Your task to perform on an android device: turn off priority inbox in the gmail app Image 0: 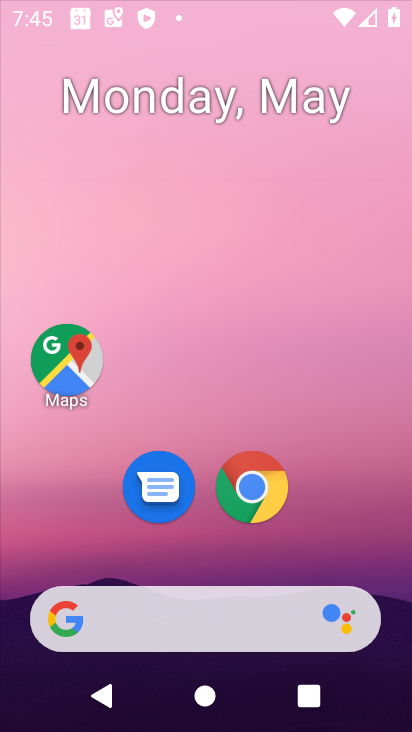
Step 0: click (341, 187)
Your task to perform on an android device: turn off priority inbox in the gmail app Image 1: 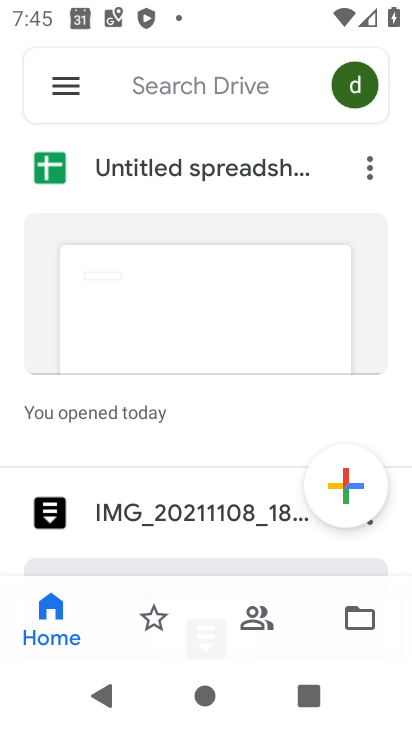
Step 1: press home button
Your task to perform on an android device: turn off priority inbox in the gmail app Image 2: 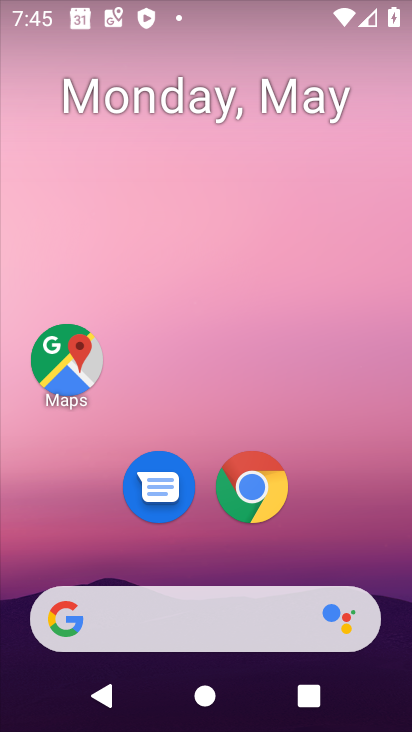
Step 2: drag from (372, 553) to (352, 99)
Your task to perform on an android device: turn off priority inbox in the gmail app Image 3: 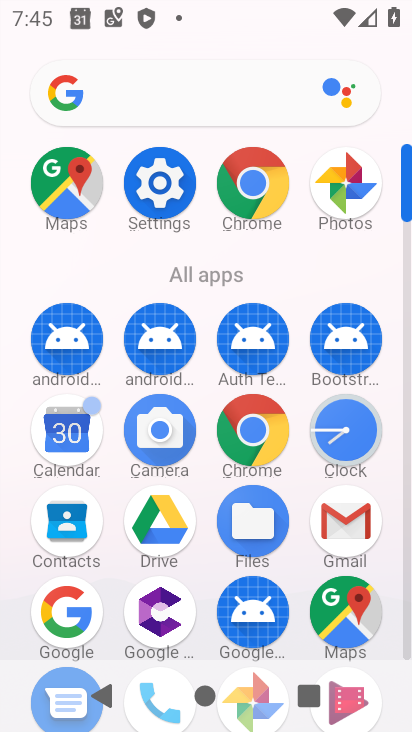
Step 3: click (336, 527)
Your task to perform on an android device: turn off priority inbox in the gmail app Image 4: 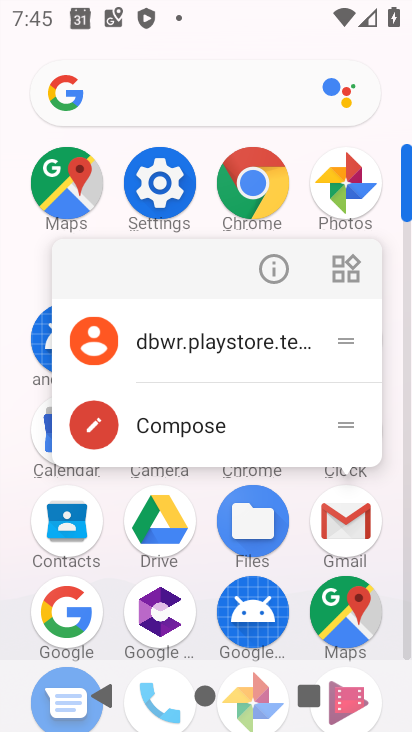
Step 4: click (336, 527)
Your task to perform on an android device: turn off priority inbox in the gmail app Image 5: 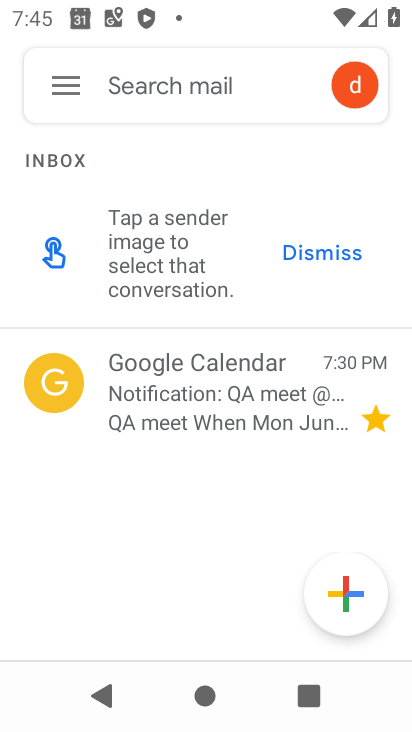
Step 5: click (63, 73)
Your task to perform on an android device: turn off priority inbox in the gmail app Image 6: 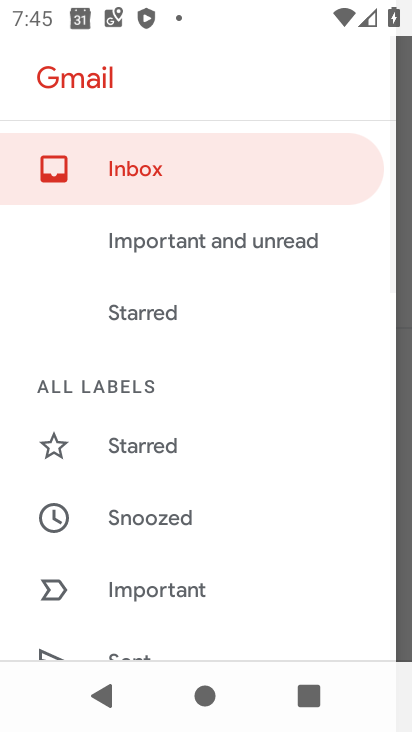
Step 6: drag from (328, 531) to (326, 373)
Your task to perform on an android device: turn off priority inbox in the gmail app Image 7: 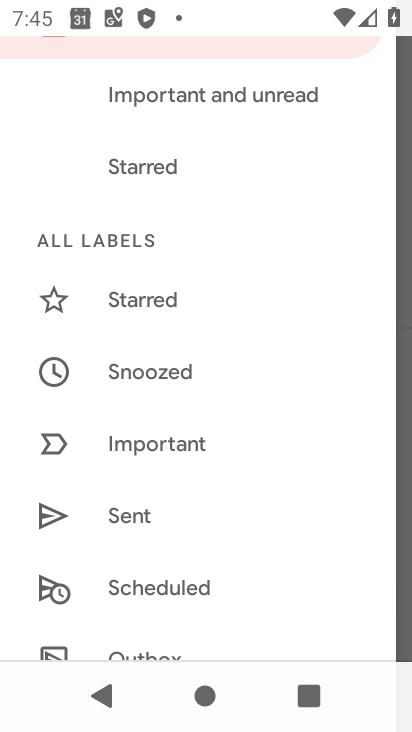
Step 7: drag from (341, 546) to (335, 384)
Your task to perform on an android device: turn off priority inbox in the gmail app Image 8: 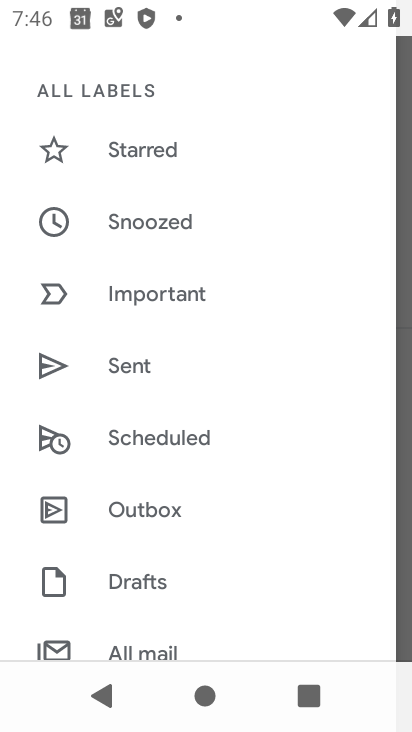
Step 8: drag from (336, 560) to (343, 339)
Your task to perform on an android device: turn off priority inbox in the gmail app Image 9: 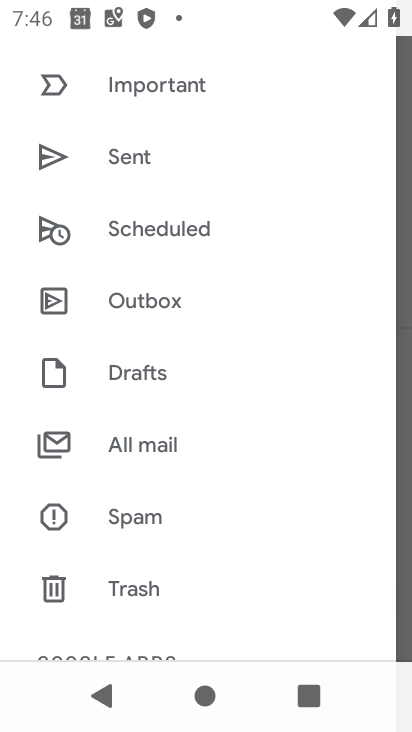
Step 9: drag from (314, 561) to (313, 387)
Your task to perform on an android device: turn off priority inbox in the gmail app Image 10: 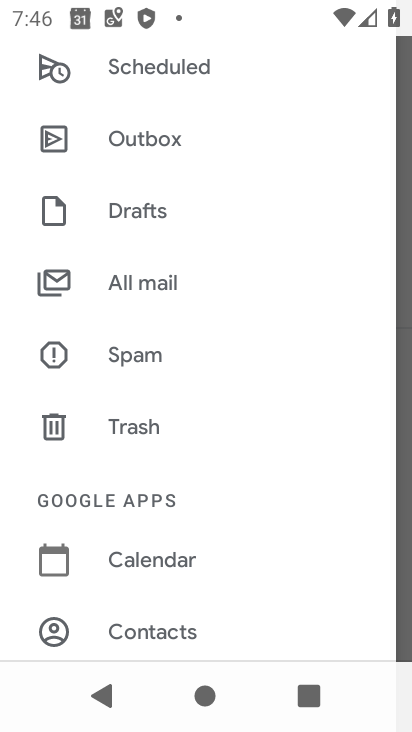
Step 10: drag from (313, 533) to (316, 374)
Your task to perform on an android device: turn off priority inbox in the gmail app Image 11: 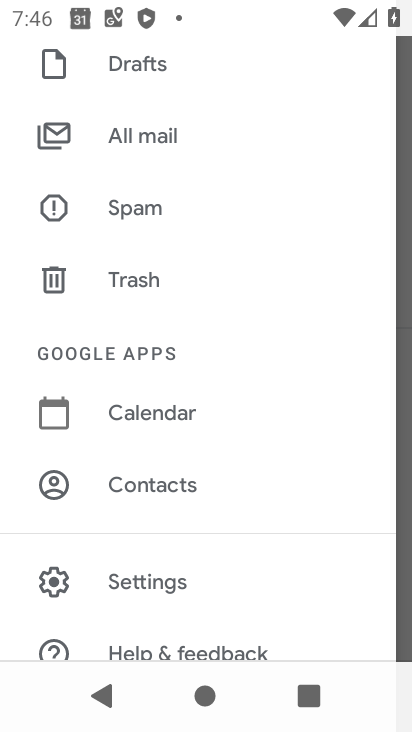
Step 11: click (186, 587)
Your task to perform on an android device: turn off priority inbox in the gmail app Image 12: 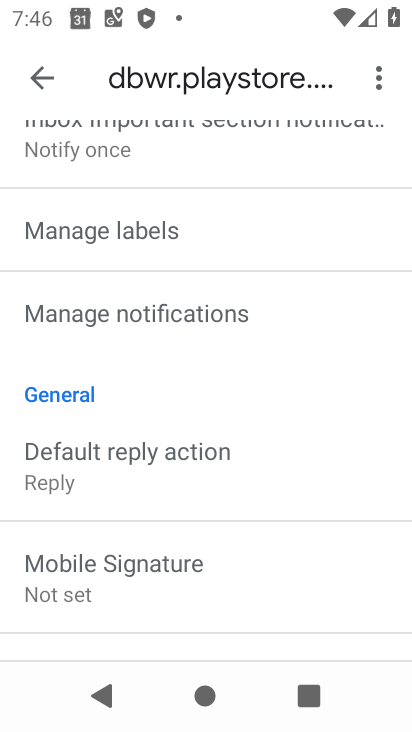
Step 12: drag from (330, 537) to (320, 381)
Your task to perform on an android device: turn off priority inbox in the gmail app Image 13: 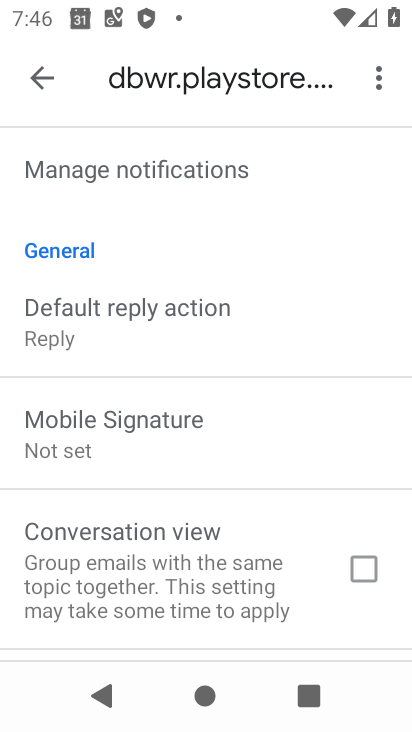
Step 13: drag from (312, 512) to (315, 371)
Your task to perform on an android device: turn off priority inbox in the gmail app Image 14: 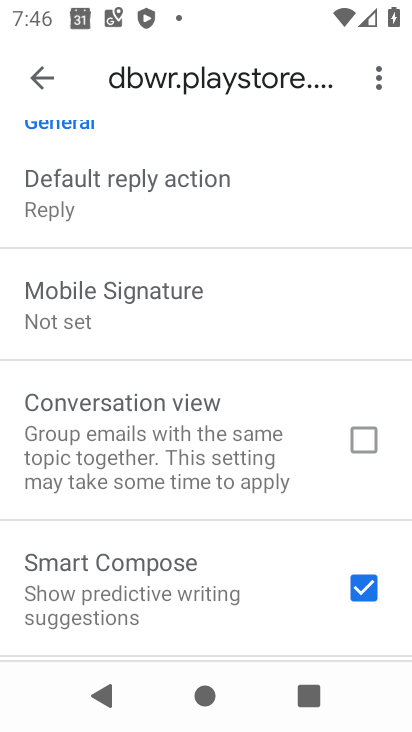
Step 14: drag from (287, 562) to (294, 418)
Your task to perform on an android device: turn off priority inbox in the gmail app Image 15: 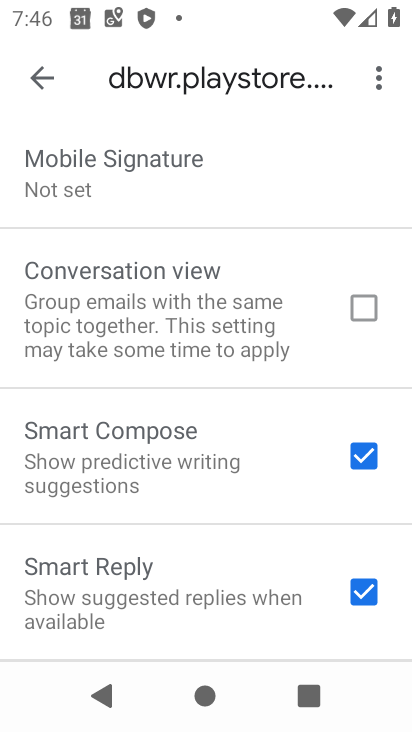
Step 15: drag from (280, 544) to (282, 411)
Your task to perform on an android device: turn off priority inbox in the gmail app Image 16: 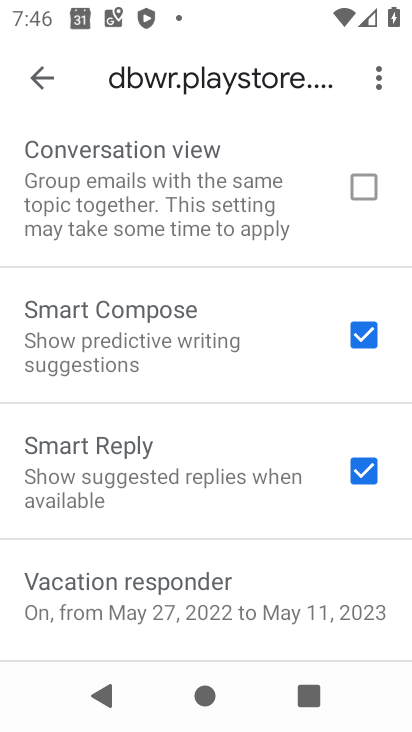
Step 16: drag from (275, 533) to (277, 341)
Your task to perform on an android device: turn off priority inbox in the gmail app Image 17: 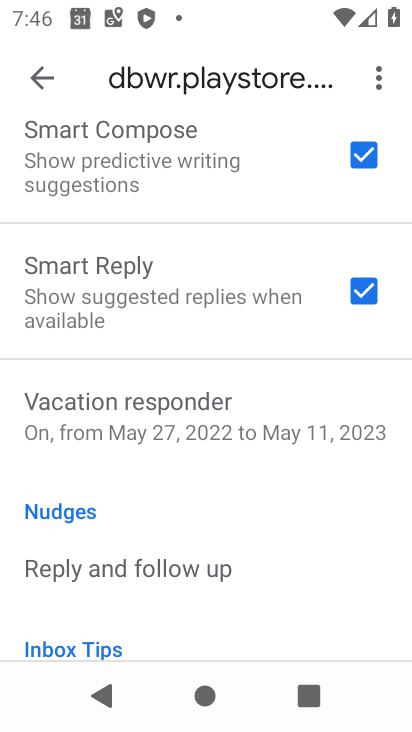
Step 17: drag from (301, 287) to (279, 461)
Your task to perform on an android device: turn off priority inbox in the gmail app Image 18: 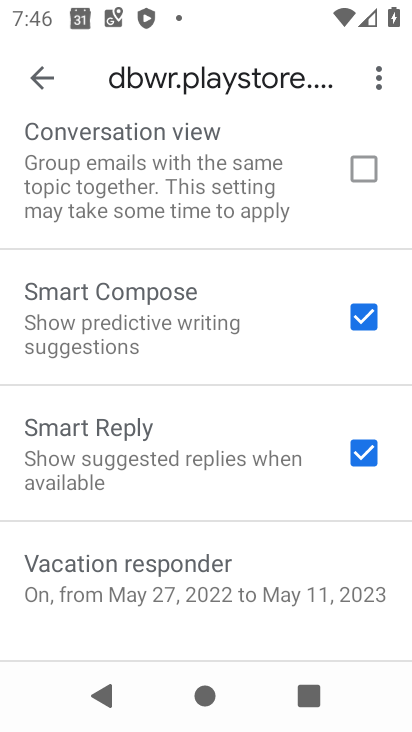
Step 18: drag from (259, 177) to (273, 391)
Your task to perform on an android device: turn off priority inbox in the gmail app Image 19: 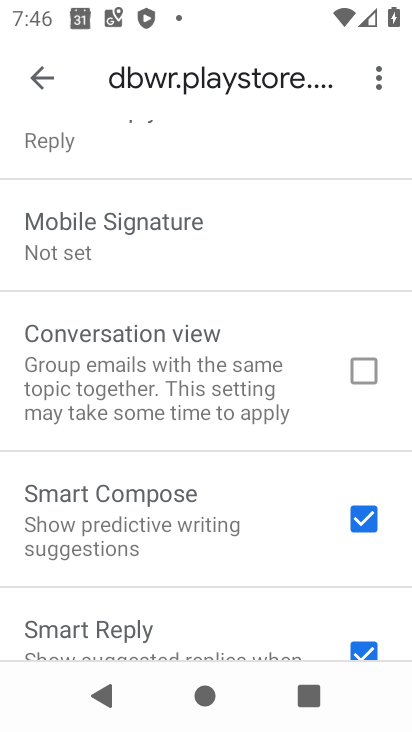
Step 19: drag from (313, 179) to (304, 300)
Your task to perform on an android device: turn off priority inbox in the gmail app Image 20: 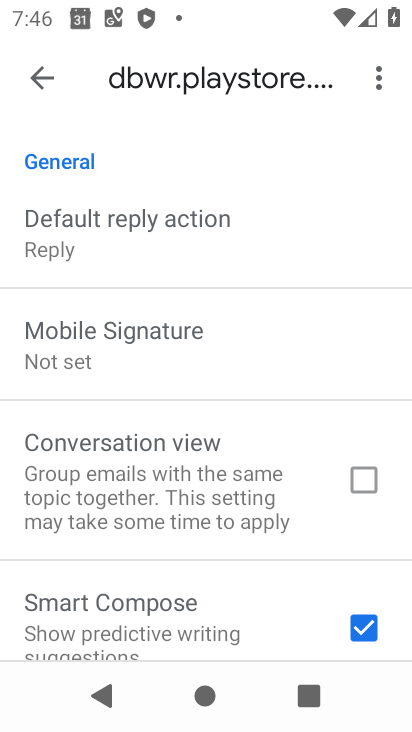
Step 20: drag from (314, 231) to (326, 402)
Your task to perform on an android device: turn off priority inbox in the gmail app Image 21: 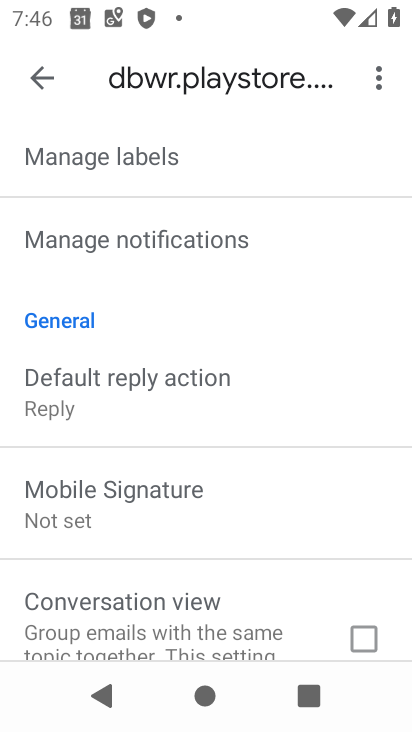
Step 21: drag from (333, 262) to (318, 432)
Your task to perform on an android device: turn off priority inbox in the gmail app Image 22: 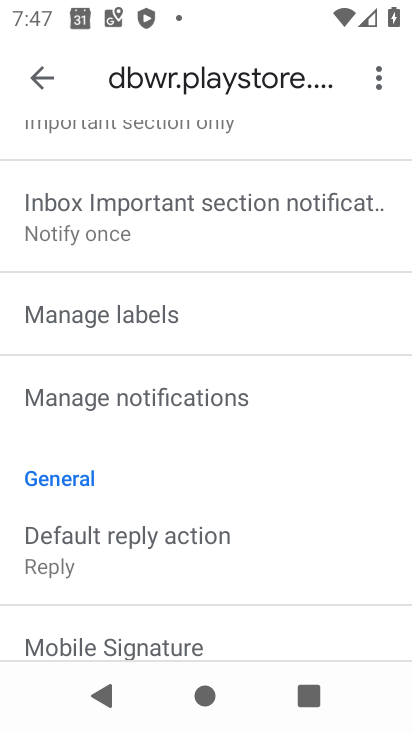
Step 22: drag from (293, 157) to (304, 348)
Your task to perform on an android device: turn off priority inbox in the gmail app Image 23: 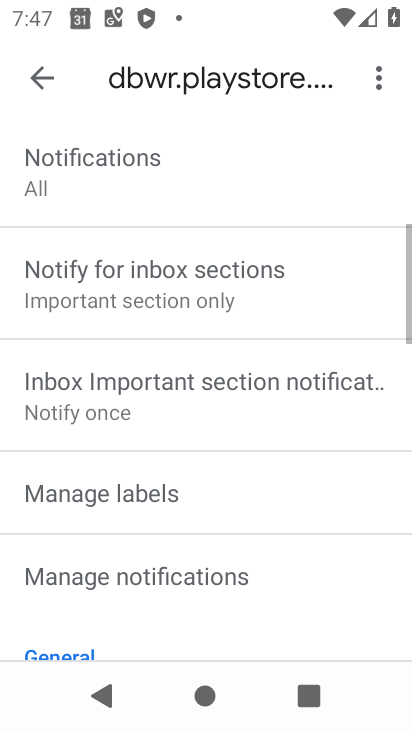
Step 23: drag from (292, 153) to (292, 371)
Your task to perform on an android device: turn off priority inbox in the gmail app Image 24: 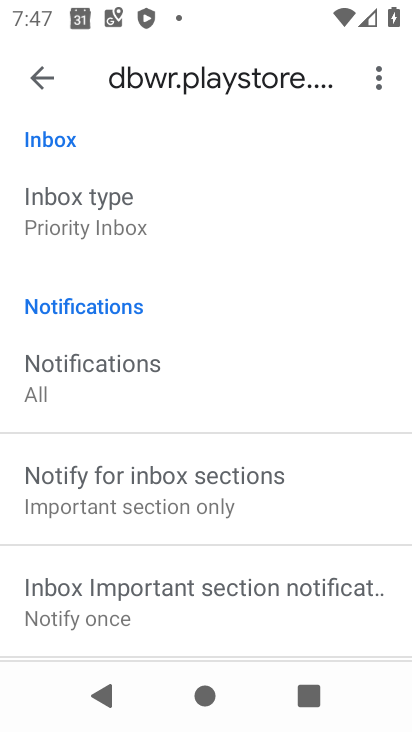
Step 24: click (104, 209)
Your task to perform on an android device: turn off priority inbox in the gmail app Image 25: 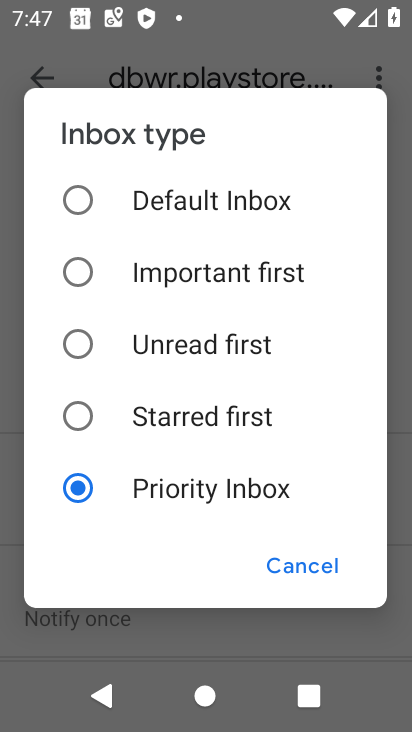
Step 25: click (96, 201)
Your task to perform on an android device: turn off priority inbox in the gmail app Image 26: 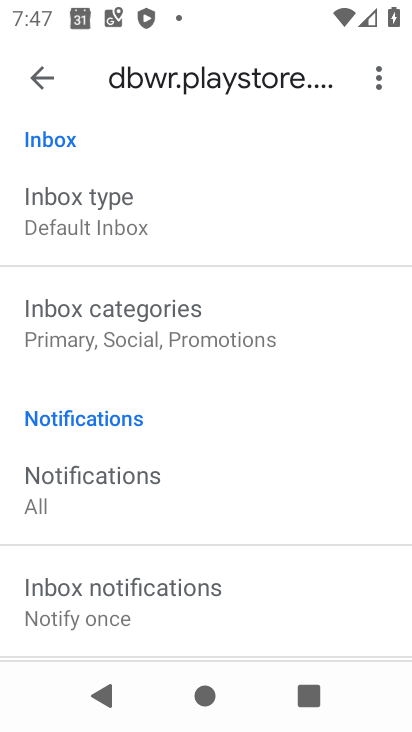
Step 26: task complete